Your task to perform on an android device: set an alarm Image 0: 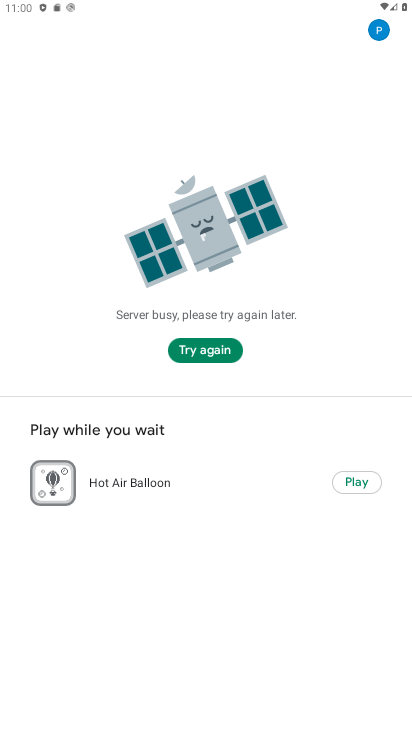
Step 0: press home button
Your task to perform on an android device: set an alarm Image 1: 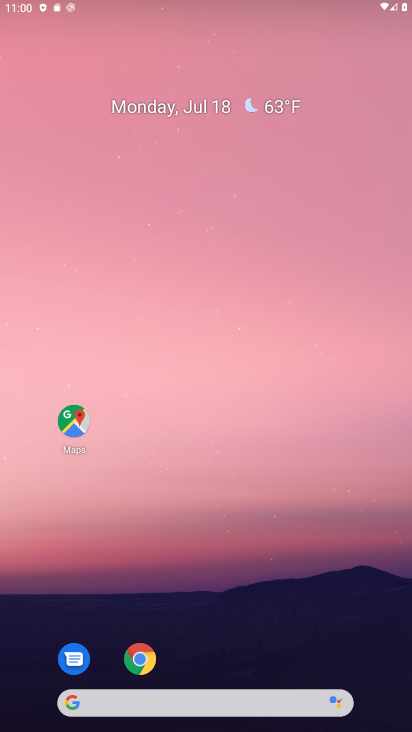
Step 1: drag from (191, 656) to (270, 109)
Your task to perform on an android device: set an alarm Image 2: 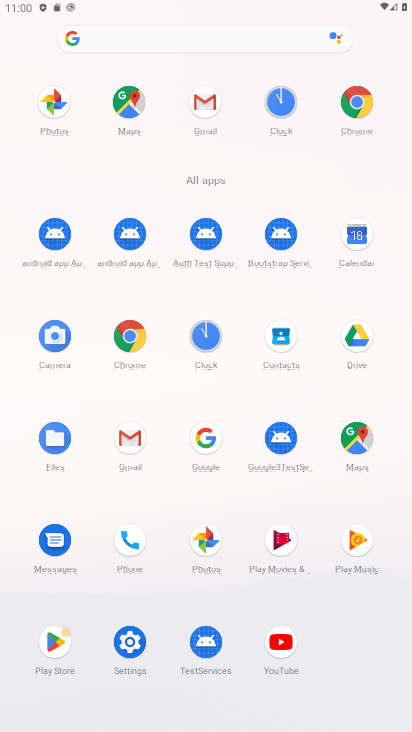
Step 2: click (204, 340)
Your task to perform on an android device: set an alarm Image 3: 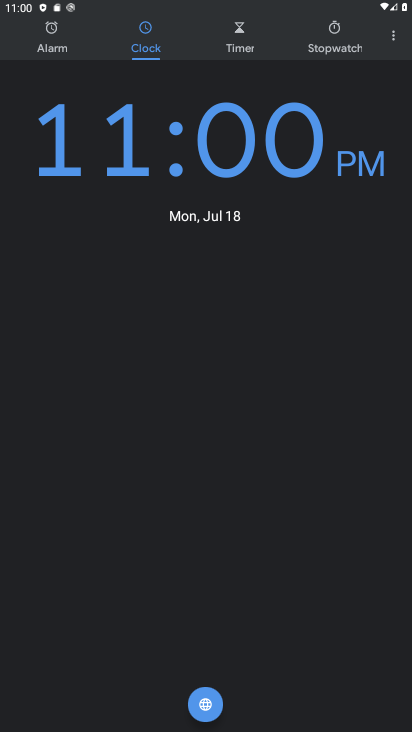
Step 3: click (51, 34)
Your task to perform on an android device: set an alarm Image 4: 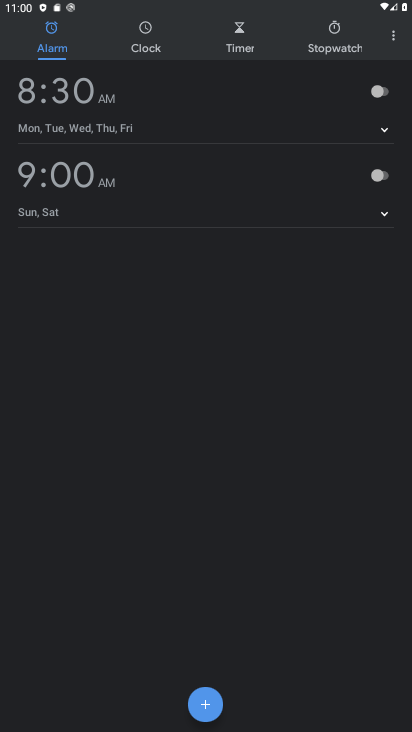
Step 4: click (382, 97)
Your task to perform on an android device: set an alarm Image 5: 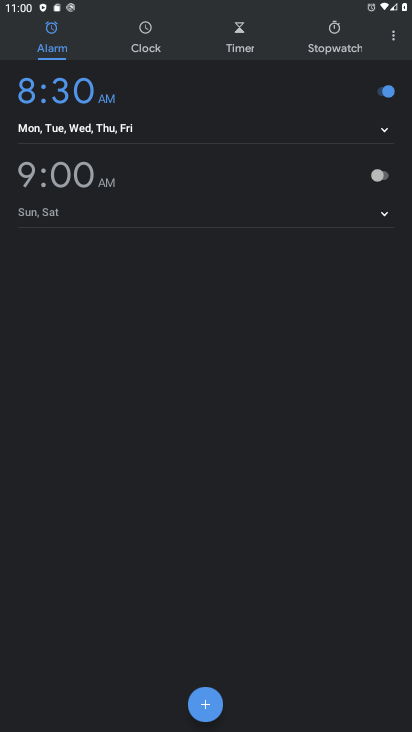
Step 5: task complete